Your task to perform on an android device: open app "Cash App" (install if not already installed) and enter user name: "submodules@gmail.com" and password: "heavenly" Image 0: 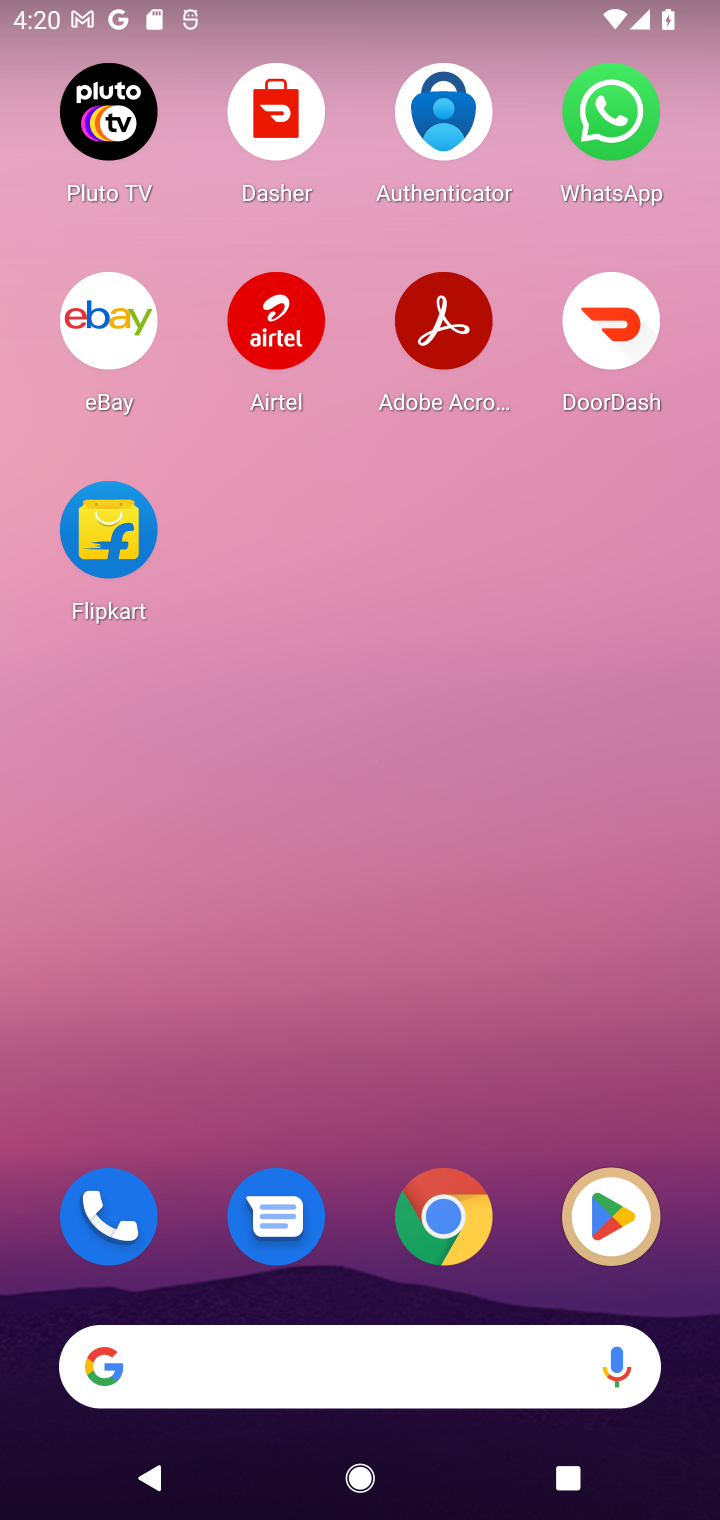
Step 0: click (594, 1201)
Your task to perform on an android device: open app "Cash App" (install if not already installed) and enter user name: "submodules@gmail.com" and password: "heavenly" Image 1: 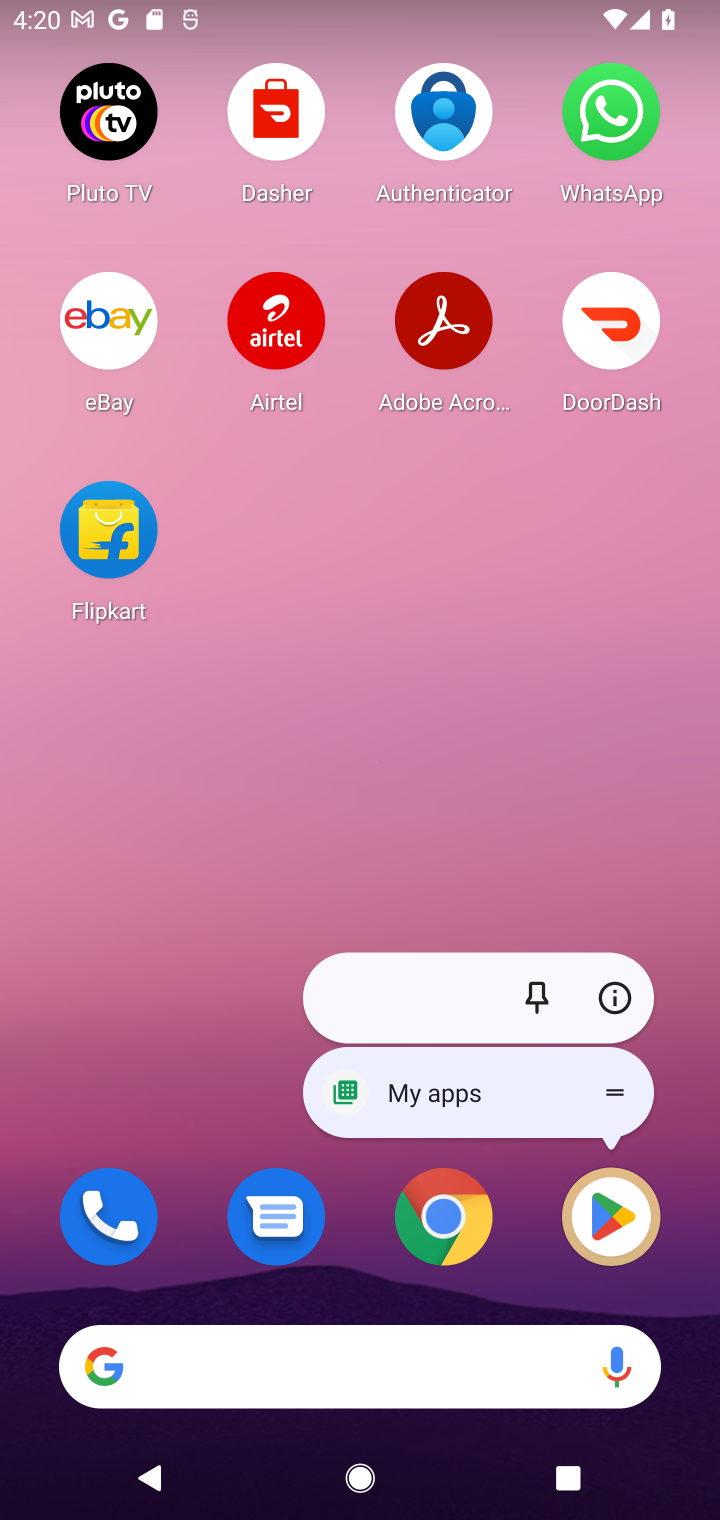
Step 1: click (604, 1203)
Your task to perform on an android device: open app "Cash App" (install if not already installed) and enter user name: "submodules@gmail.com" and password: "heavenly" Image 2: 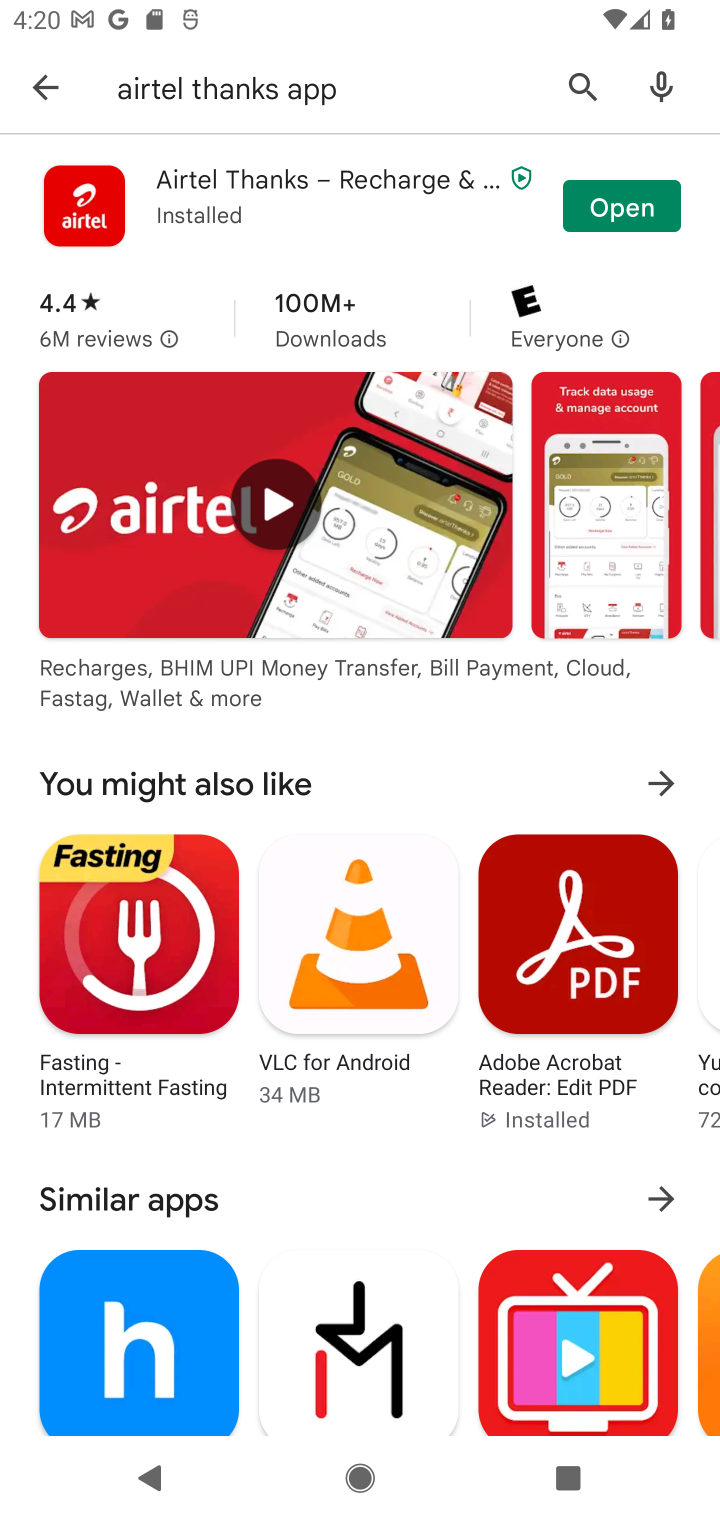
Step 2: click (581, 64)
Your task to perform on an android device: open app "Cash App" (install if not already installed) and enter user name: "submodules@gmail.com" and password: "heavenly" Image 3: 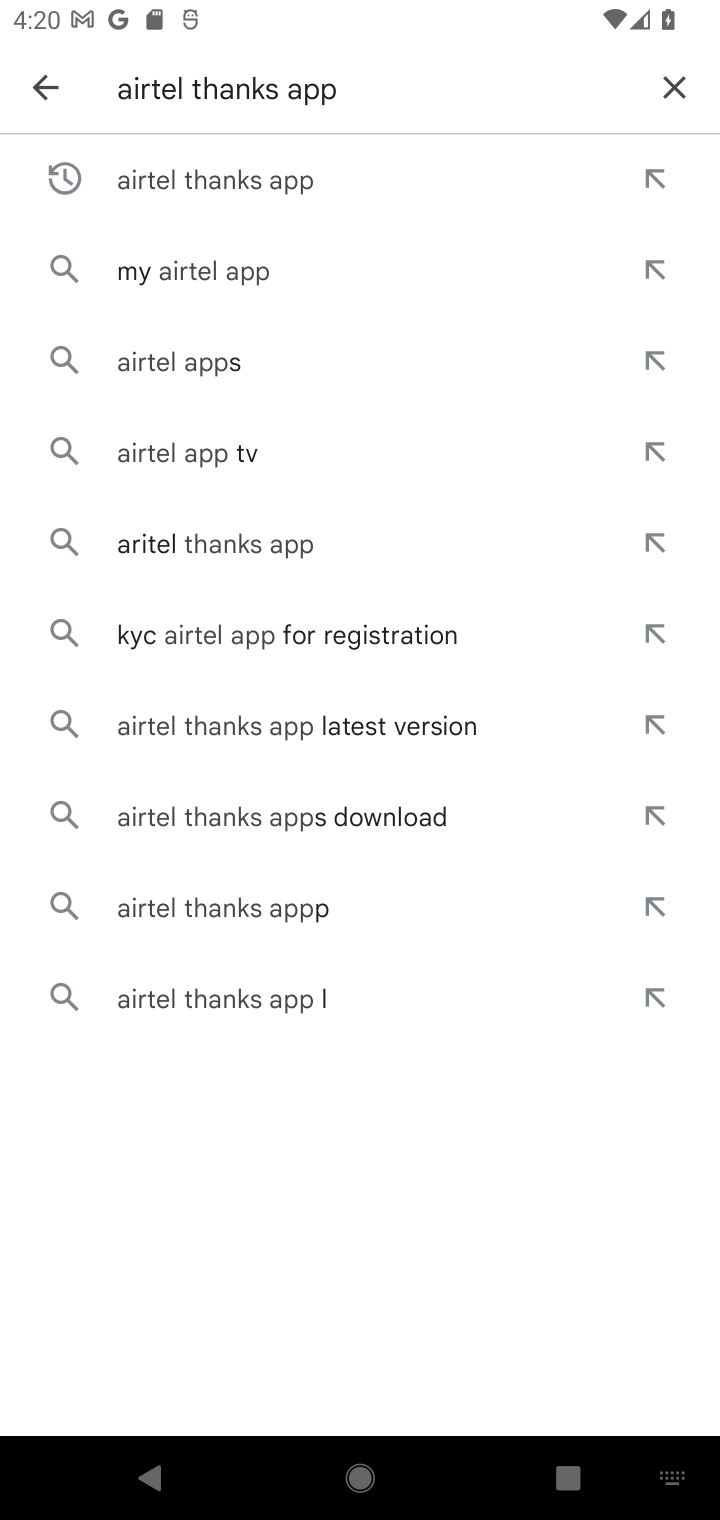
Step 3: click (680, 83)
Your task to perform on an android device: open app "Cash App" (install if not already installed) and enter user name: "submodules@gmail.com" and password: "heavenly" Image 4: 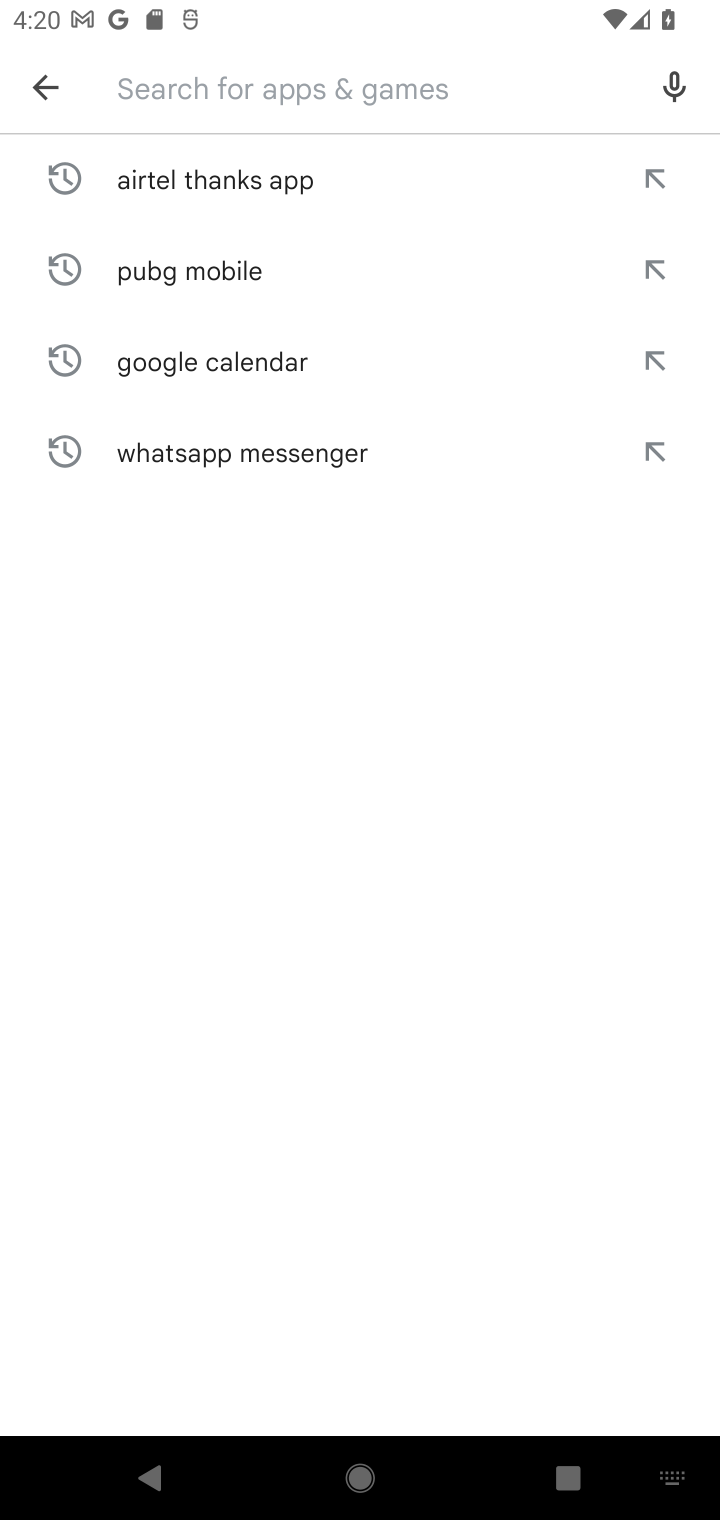
Step 4: type "Cash App"
Your task to perform on an android device: open app "Cash App" (install if not already installed) and enter user name: "submodules@gmail.com" and password: "heavenly" Image 5: 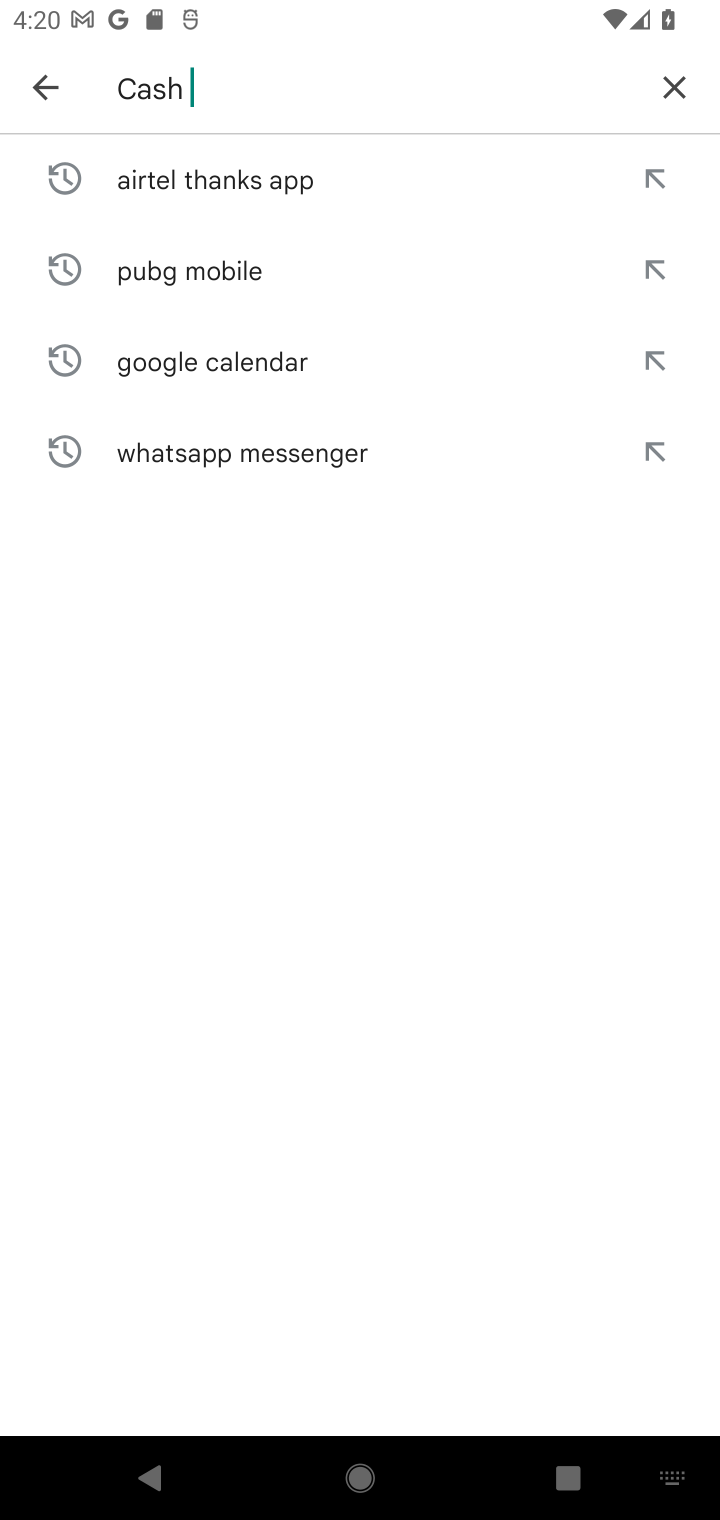
Step 5: type ""
Your task to perform on an android device: open app "Cash App" (install if not already installed) and enter user name: "submodules@gmail.com" and password: "heavenly" Image 6: 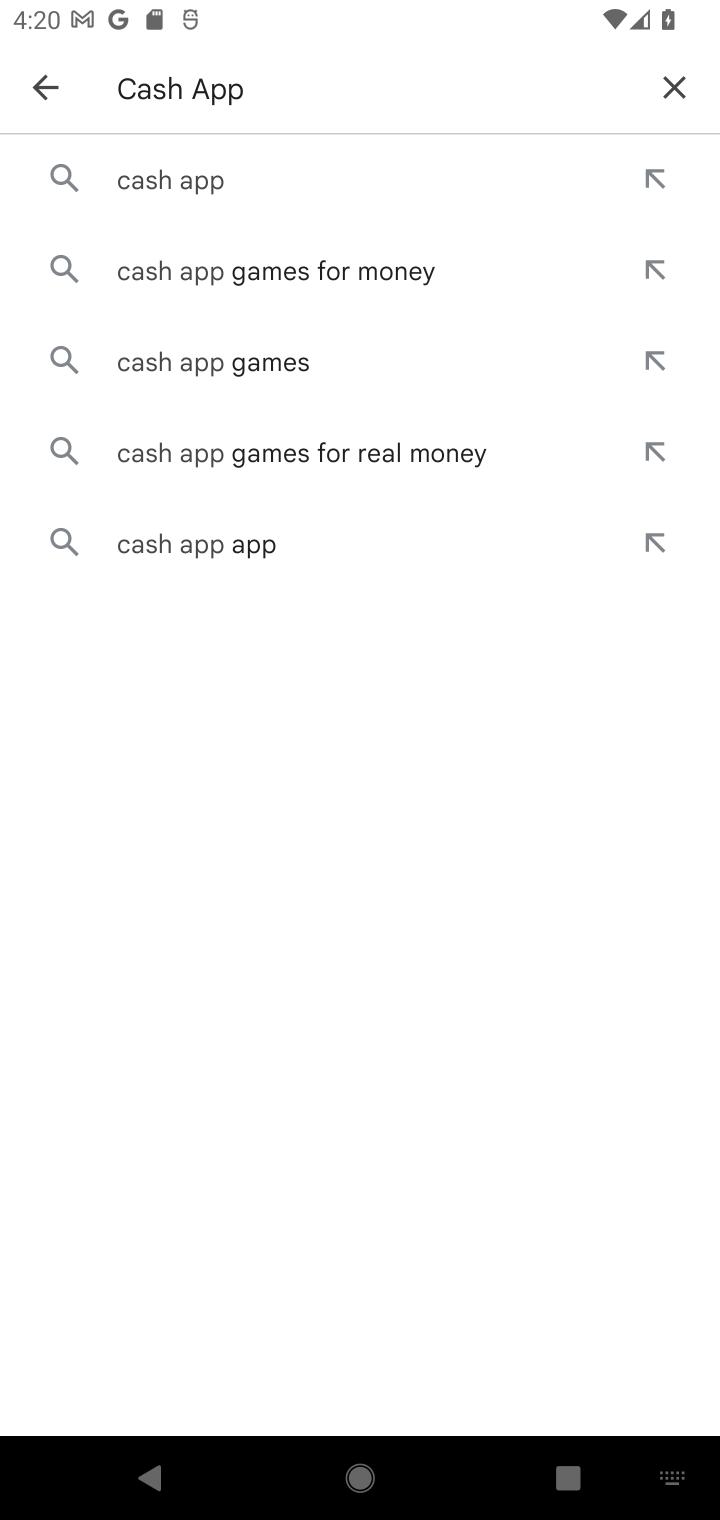
Step 6: click (159, 177)
Your task to perform on an android device: open app "Cash App" (install if not already installed) and enter user name: "submodules@gmail.com" and password: "heavenly" Image 7: 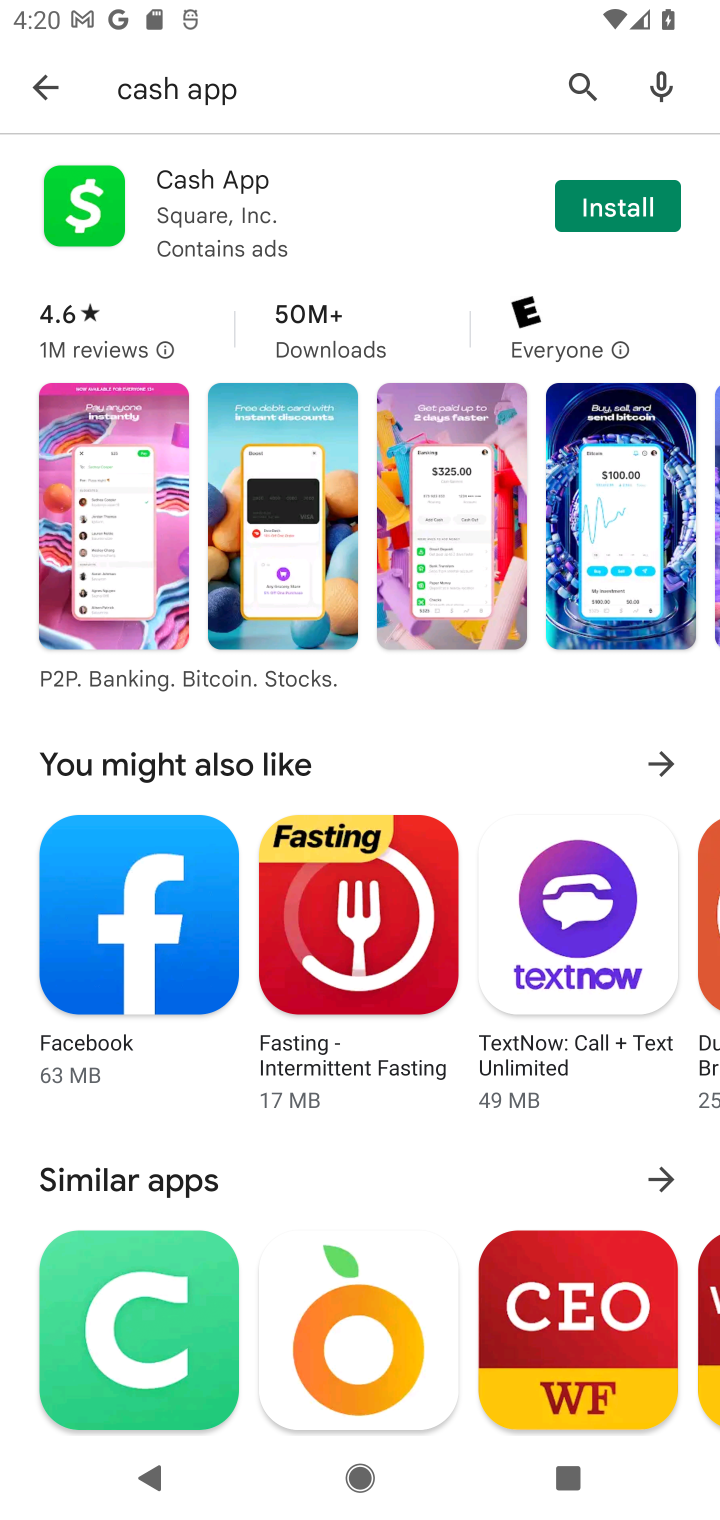
Step 7: click (598, 208)
Your task to perform on an android device: open app "Cash App" (install if not already installed) and enter user name: "submodules@gmail.com" and password: "heavenly" Image 8: 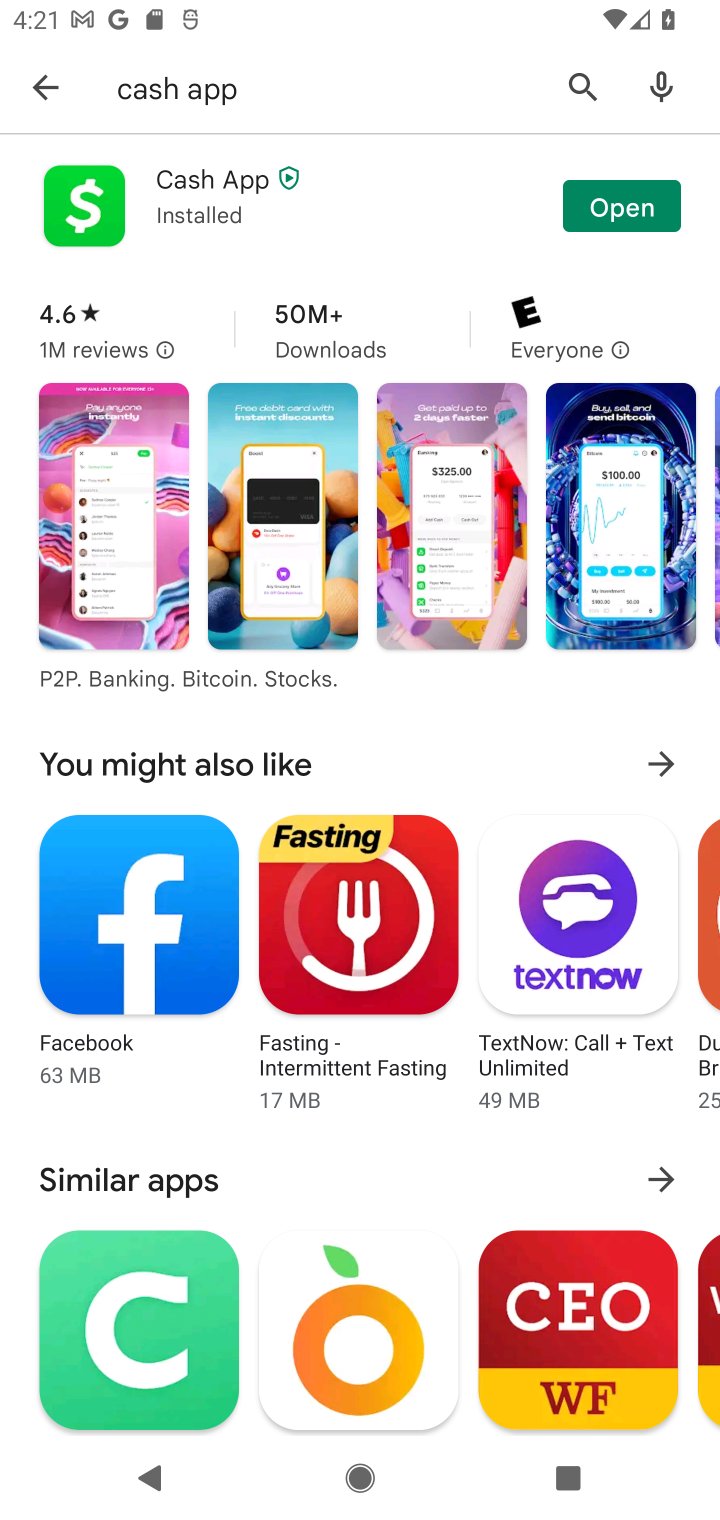
Step 8: click (610, 207)
Your task to perform on an android device: open app "Cash App" (install if not already installed) and enter user name: "submodules@gmail.com" and password: "heavenly" Image 9: 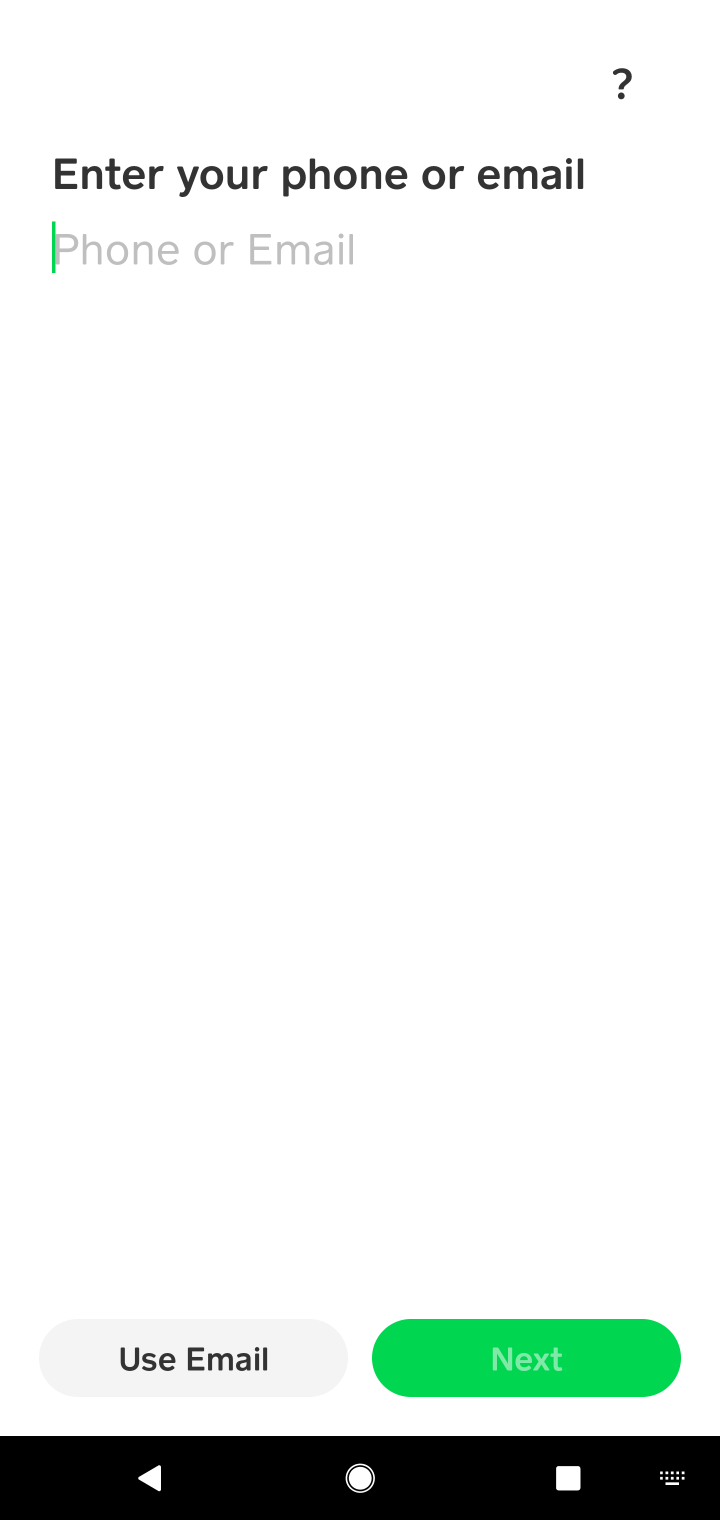
Step 9: task complete